Your task to perform on an android device: Search for seafood restaurants on Google Maps Image 0: 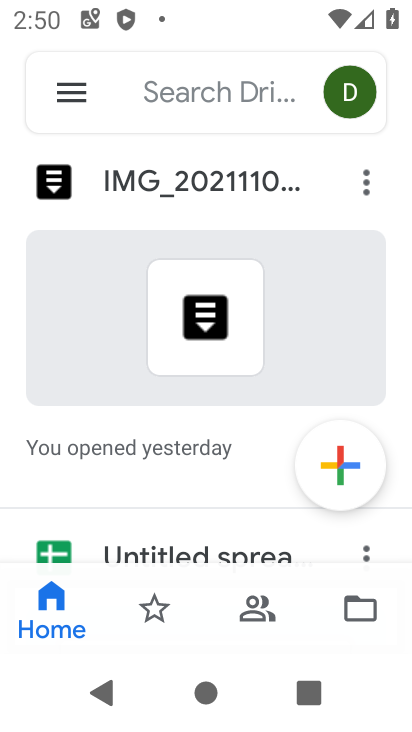
Step 0: press back button
Your task to perform on an android device: Search for seafood restaurants on Google Maps Image 1: 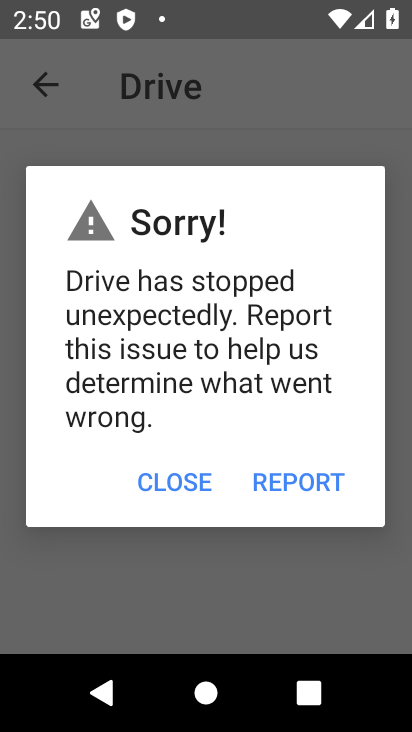
Step 1: press back button
Your task to perform on an android device: Search for seafood restaurants on Google Maps Image 2: 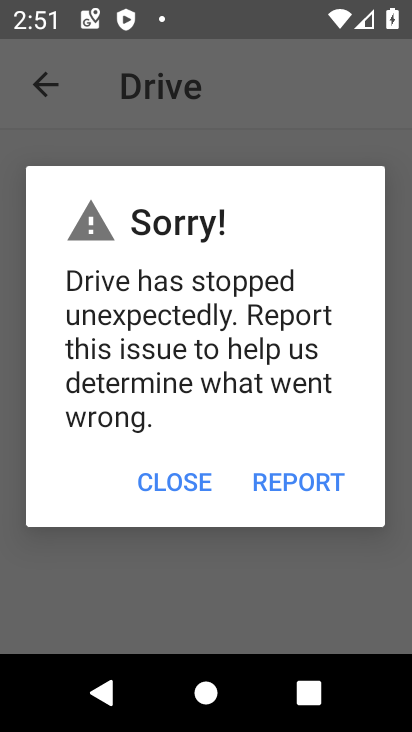
Step 2: press back button
Your task to perform on an android device: Search for seafood restaurants on Google Maps Image 3: 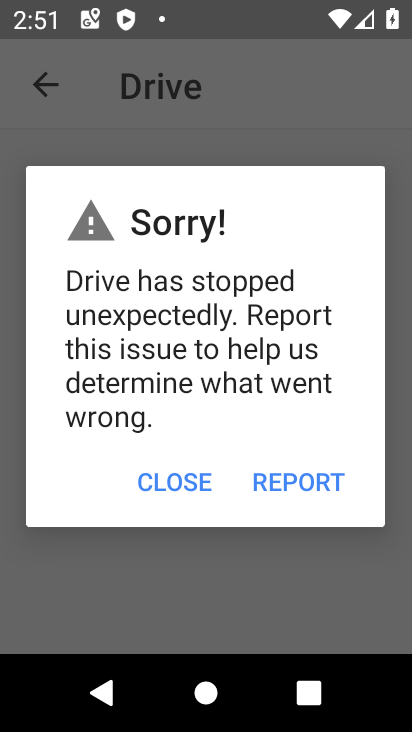
Step 3: press back button
Your task to perform on an android device: Search for seafood restaurants on Google Maps Image 4: 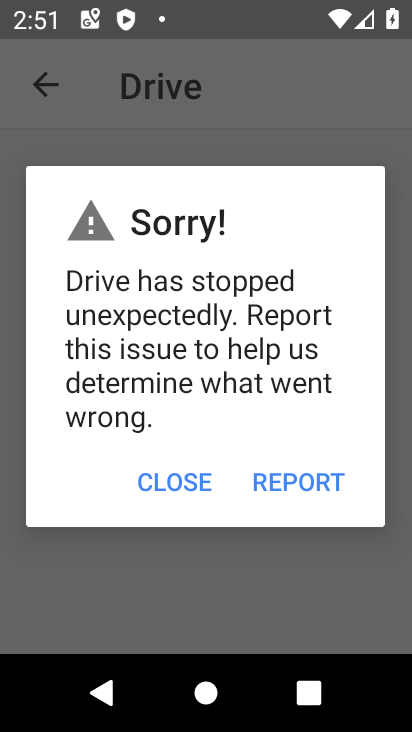
Step 4: press home button
Your task to perform on an android device: Search for seafood restaurants on Google Maps Image 5: 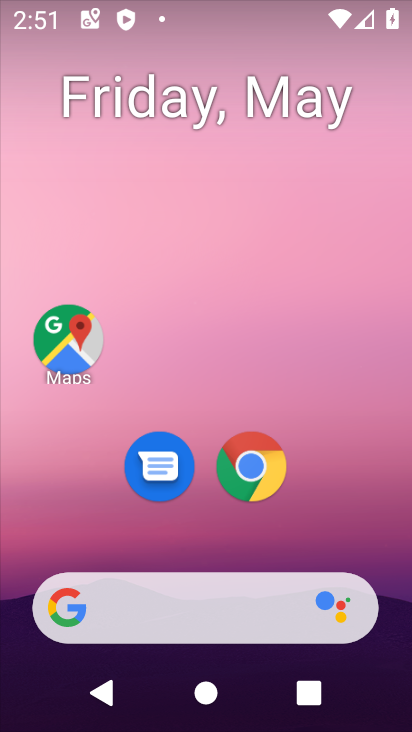
Step 5: click (75, 344)
Your task to perform on an android device: Search for seafood restaurants on Google Maps Image 6: 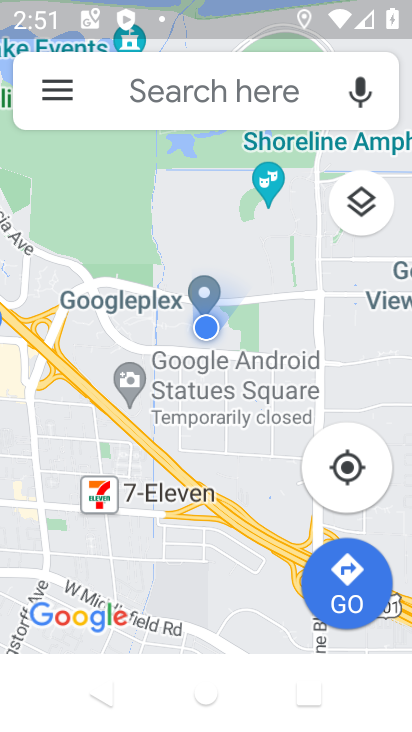
Step 6: click (150, 91)
Your task to perform on an android device: Search for seafood restaurants on Google Maps Image 7: 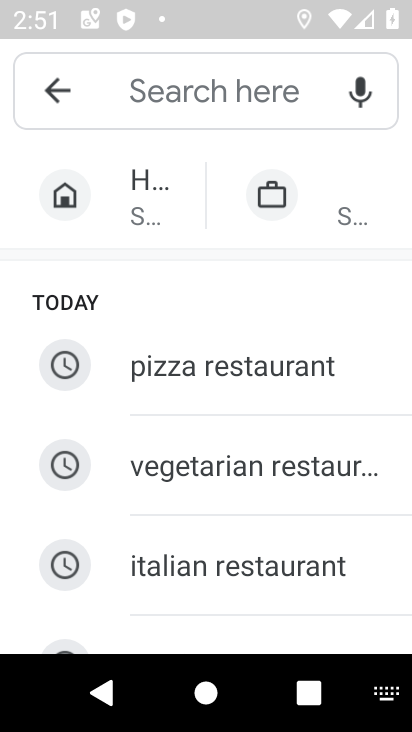
Step 7: type "seafood restaurant"
Your task to perform on an android device: Search for seafood restaurants on Google Maps Image 8: 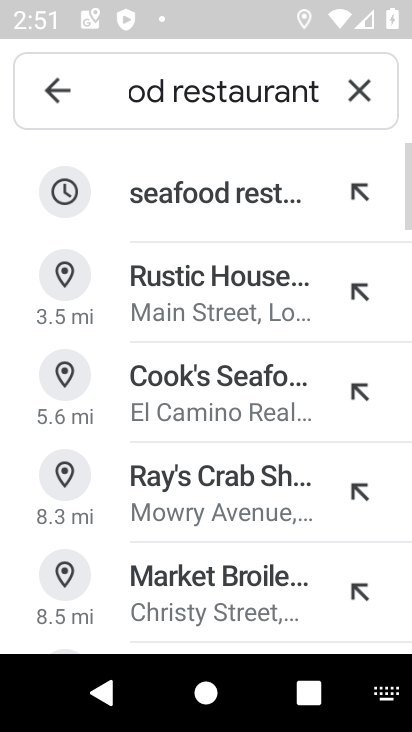
Step 8: click (233, 201)
Your task to perform on an android device: Search for seafood restaurants on Google Maps Image 9: 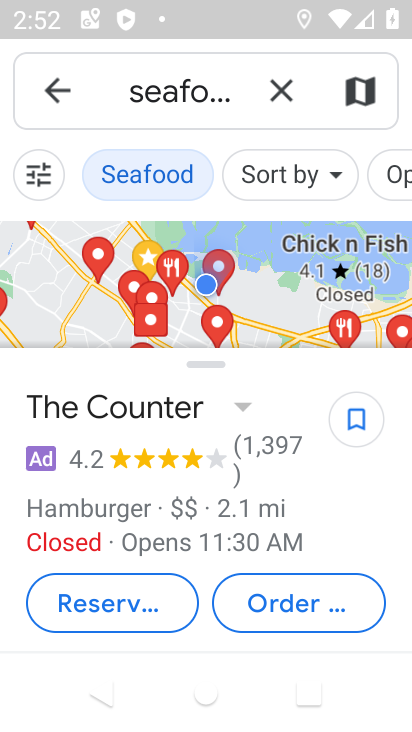
Step 9: task complete